Your task to perform on an android device: Show me recent news Image 0: 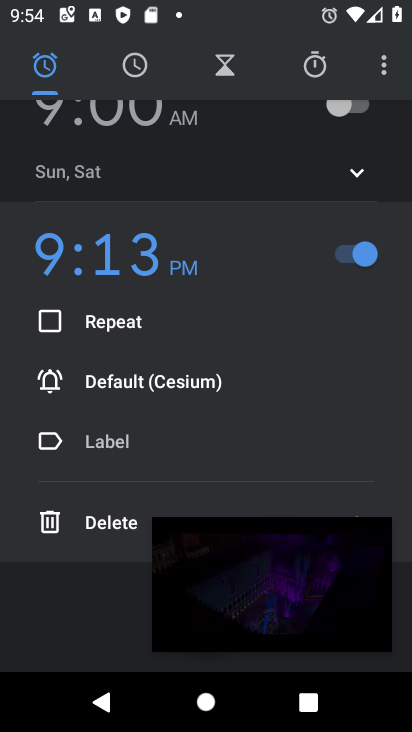
Step 0: click (368, 546)
Your task to perform on an android device: Show me recent news Image 1: 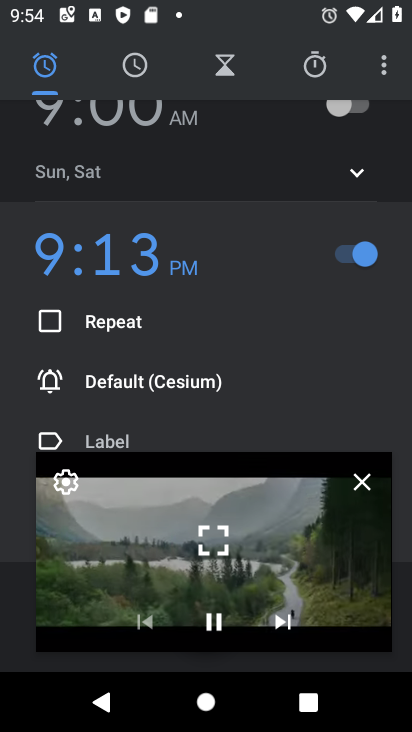
Step 1: click (363, 482)
Your task to perform on an android device: Show me recent news Image 2: 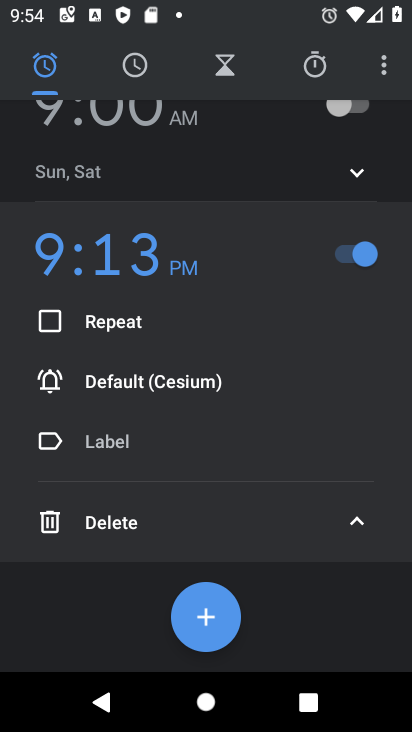
Step 2: press back button
Your task to perform on an android device: Show me recent news Image 3: 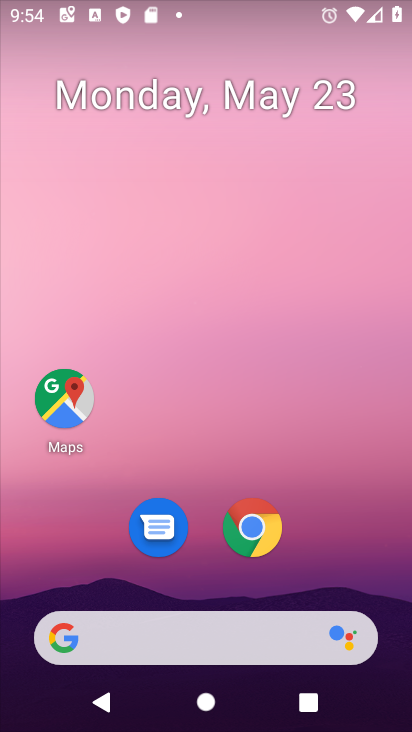
Step 3: drag from (387, 548) to (314, 75)
Your task to perform on an android device: Show me recent news Image 4: 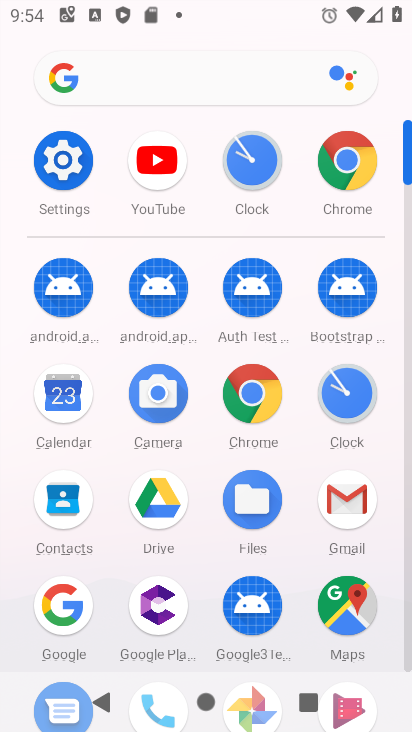
Step 4: drag from (8, 628) to (17, 270)
Your task to perform on an android device: Show me recent news Image 5: 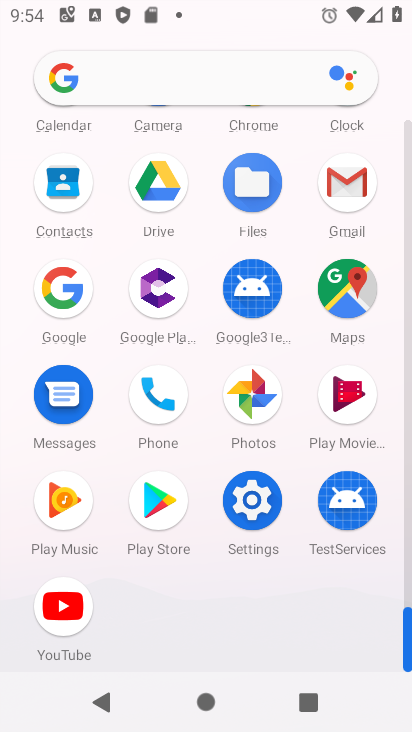
Step 5: drag from (42, 214) to (56, 501)
Your task to perform on an android device: Show me recent news Image 6: 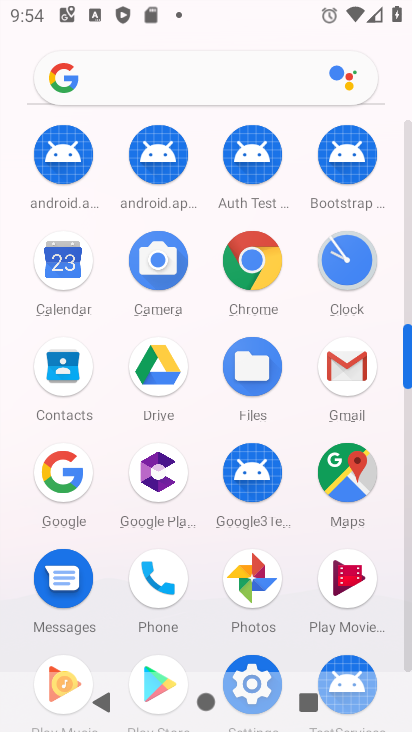
Step 6: click (254, 248)
Your task to perform on an android device: Show me recent news Image 7: 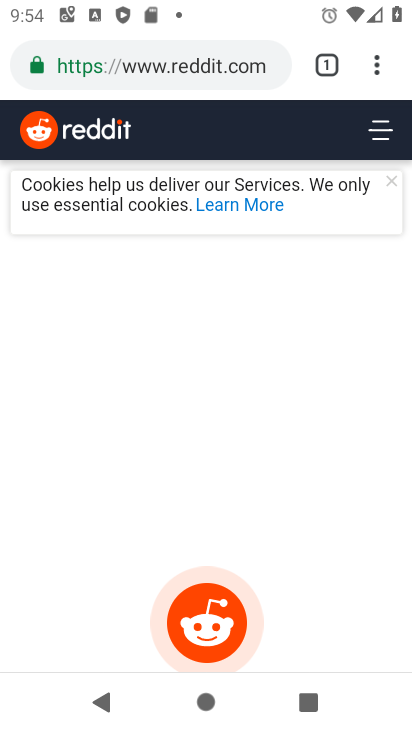
Step 7: click (106, 44)
Your task to perform on an android device: Show me recent news Image 8: 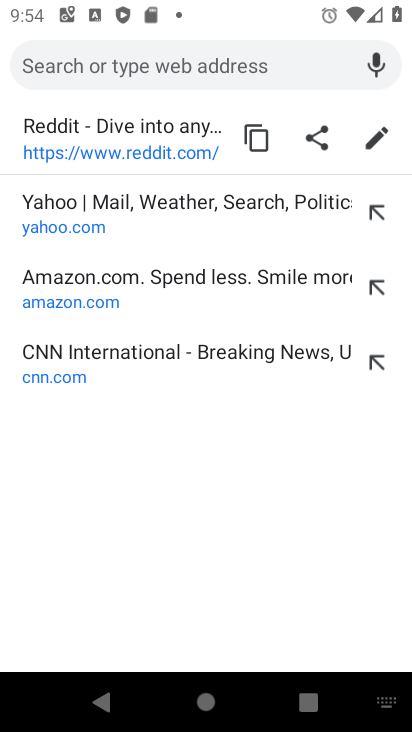
Step 8: type "Show me recent news"
Your task to perform on an android device: Show me recent news Image 9: 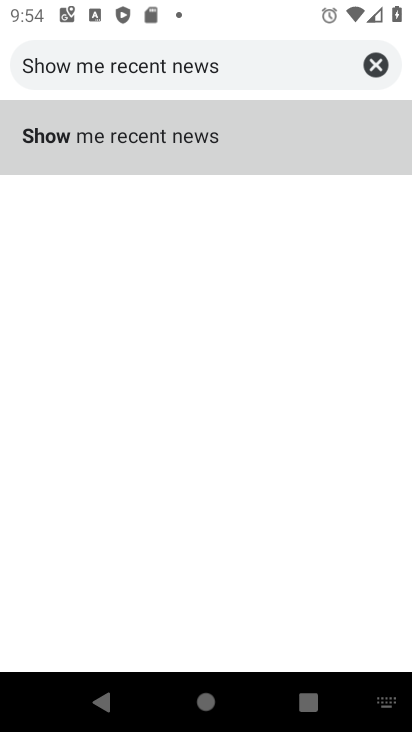
Step 9: click (147, 130)
Your task to perform on an android device: Show me recent news Image 10: 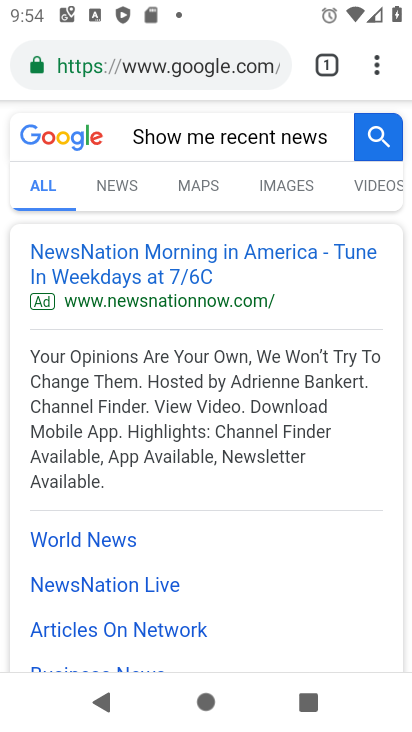
Step 10: click (120, 181)
Your task to perform on an android device: Show me recent news Image 11: 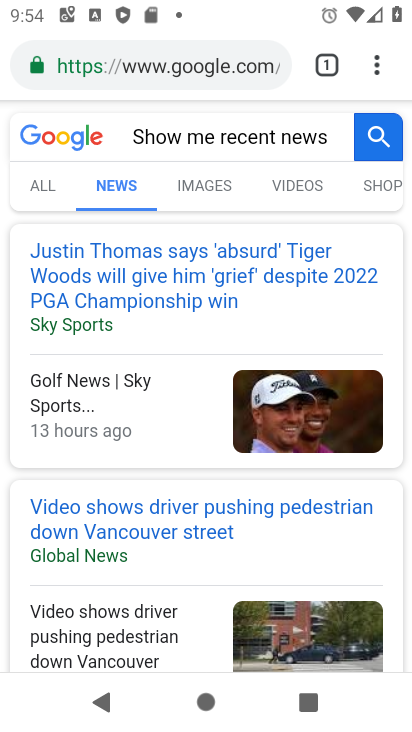
Step 11: task complete